Your task to perform on an android device: set the timer Image 0: 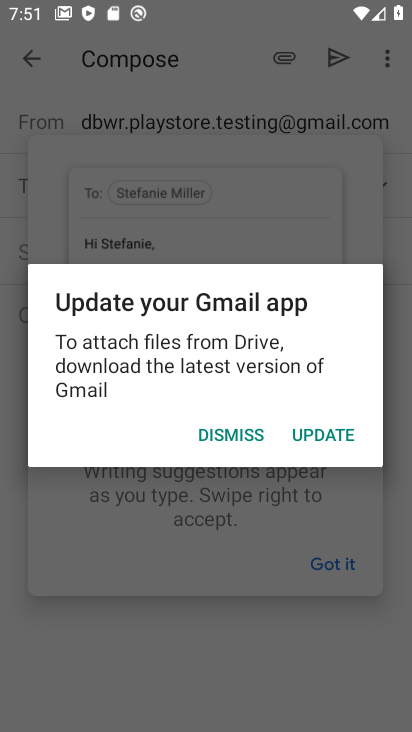
Step 0: press home button
Your task to perform on an android device: set the timer Image 1: 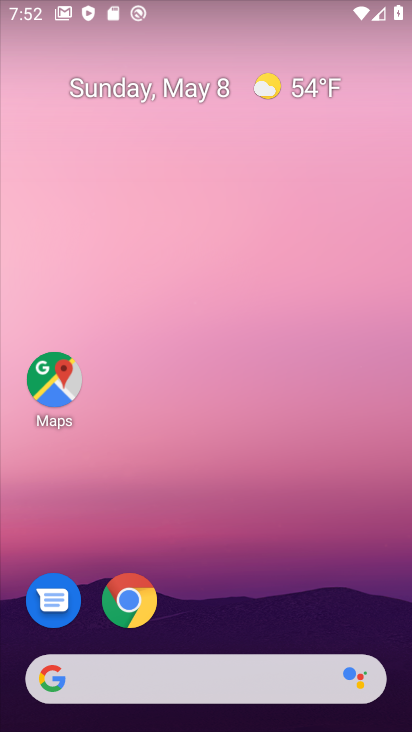
Step 1: drag from (212, 613) to (270, 24)
Your task to perform on an android device: set the timer Image 2: 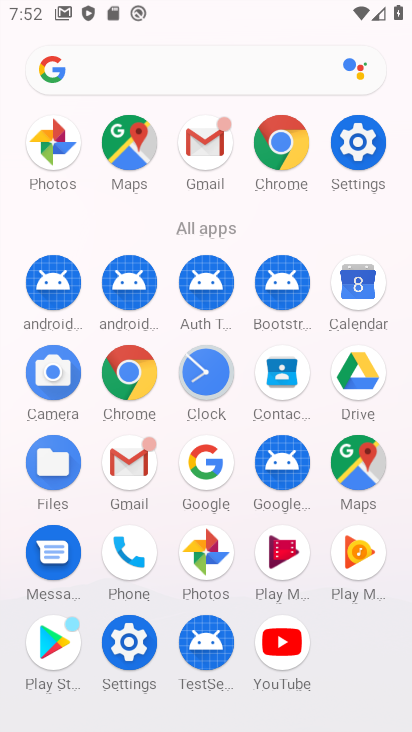
Step 2: click (223, 388)
Your task to perform on an android device: set the timer Image 3: 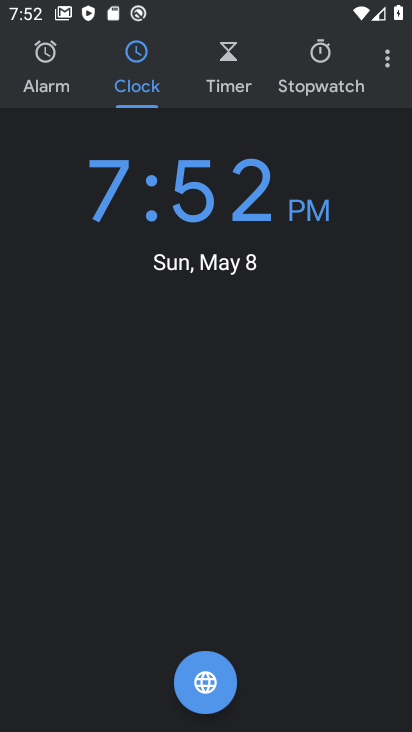
Step 3: click (247, 60)
Your task to perform on an android device: set the timer Image 4: 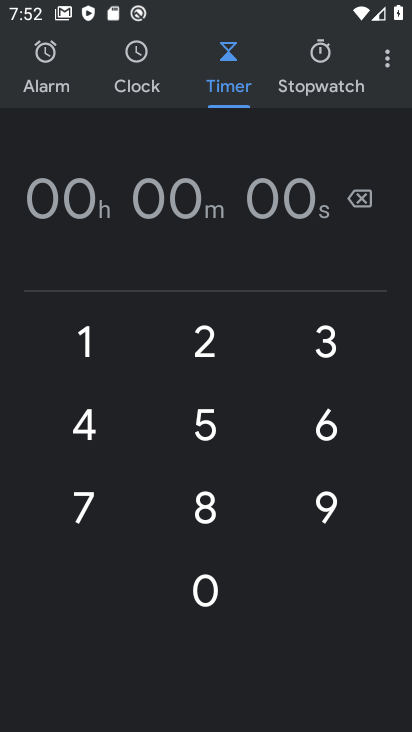
Step 4: click (242, 336)
Your task to perform on an android device: set the timer Image 5: 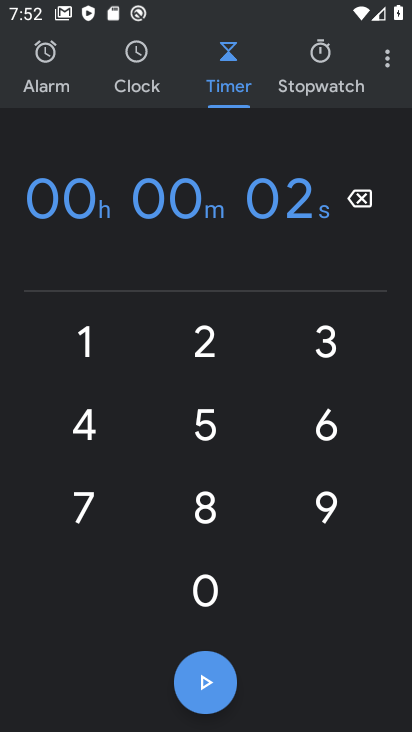
Step 5: click (218, 690)
Your task to perform on an android device: set the timer Image 6: 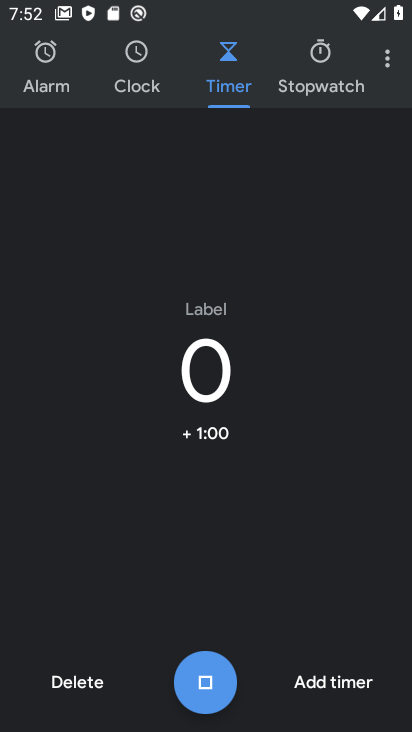
Step 6: task complete